Your task to perform on an android device: turn on javascript in the chrome app Image 0: 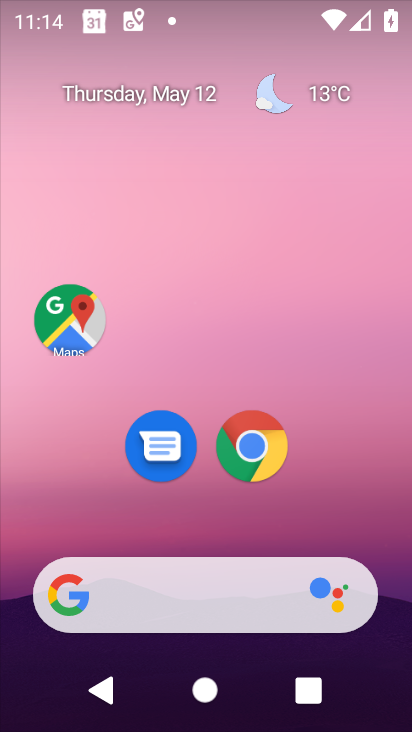
Step 0: press home button
Your task to perform on an android device: turn on javascript in the chrome app Image 1: 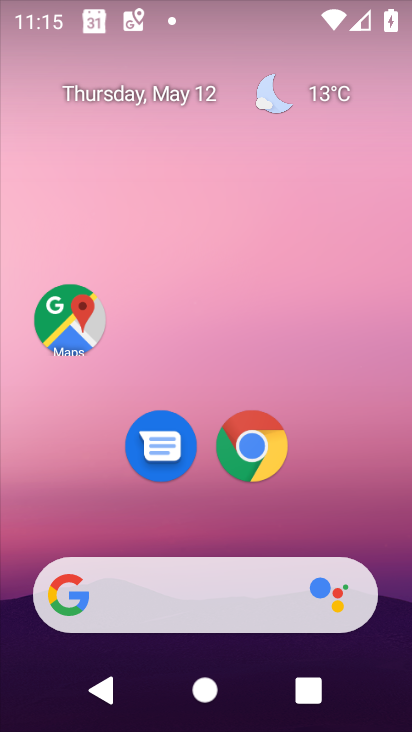
Step 1: drag from (249, 570) to (226, 8)
Your task to perform on an android device: turn on javascript in the chrome app Image 2: 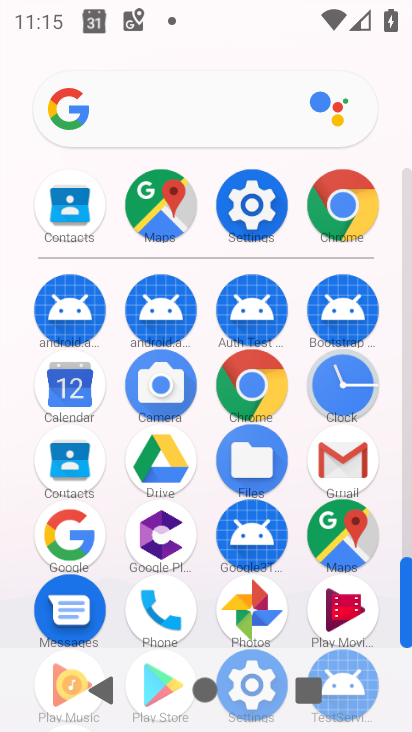
Step 2: click (251, 378)
Your task to perform on an android device: turn on javascript in the chrome app Image 3: 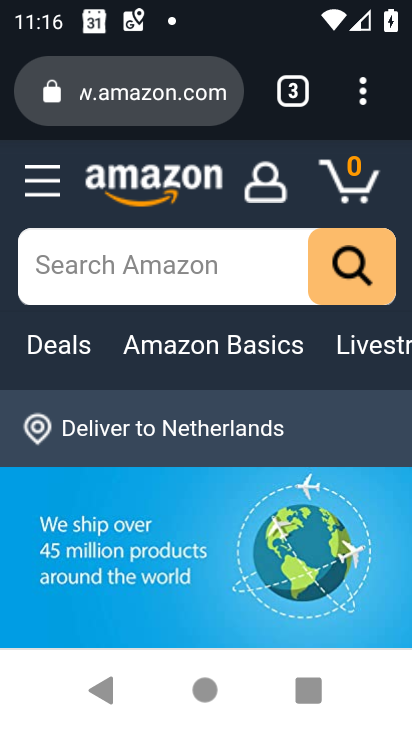
Step 3: drag from (365, 98) to (106, 483)
Your task to perform on an android device: turn on javascript in the chrome app Image 4: 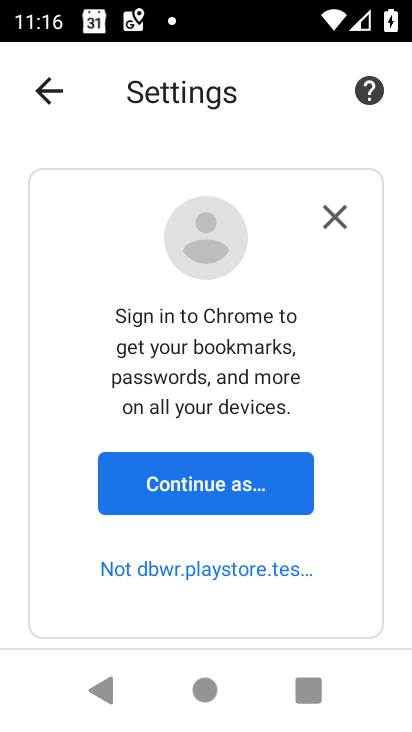
Step 4: drag from (135, 612) to (177, 0)
Your task to perform on an android device: turn on javascript in the chrome app Image 5: 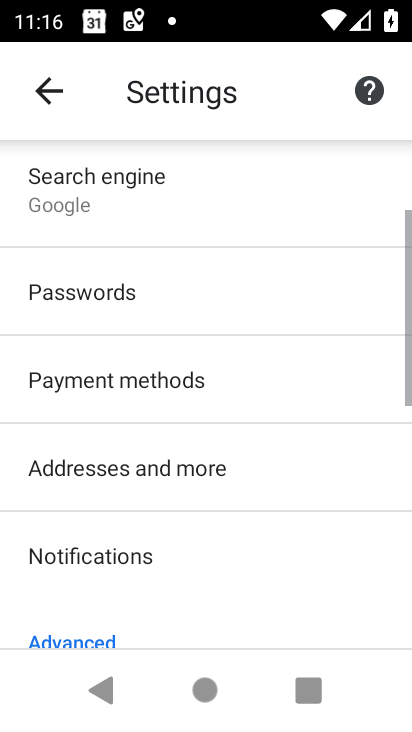
Step 5: drag from (188, 583) to (185, 181)
Your task to perform on an android device: turn on javascript in the chrome app Image 6: 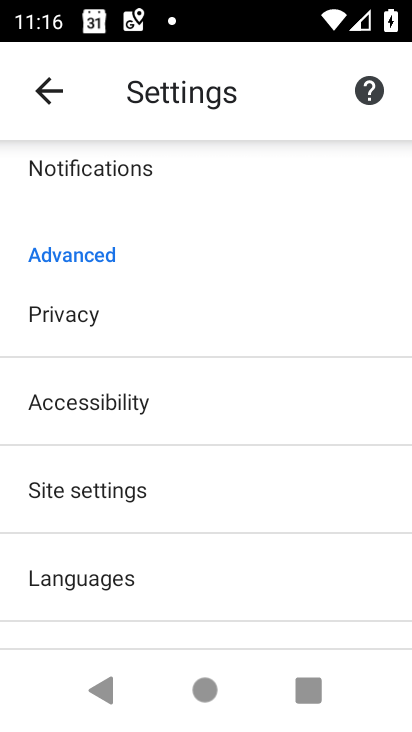
Step 6: click (119, 481)
Your task to perform on an android device: turn on javascript in the chrome app Image 7: 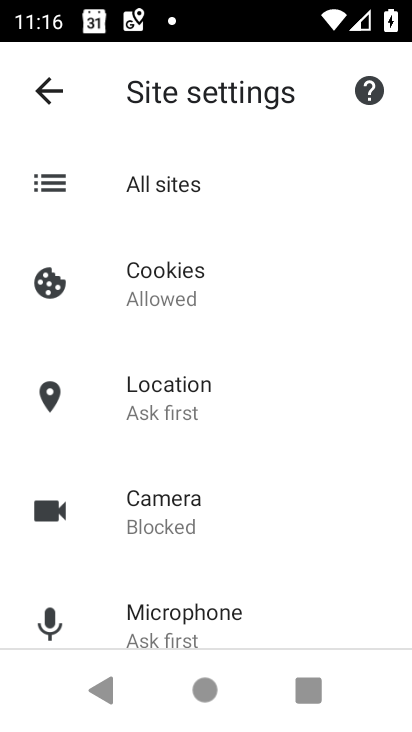
Step 7: drag from (146, 601) to (170, 124)
Your task to perform on an android device: turn on javascript in the chrome app Image 8: 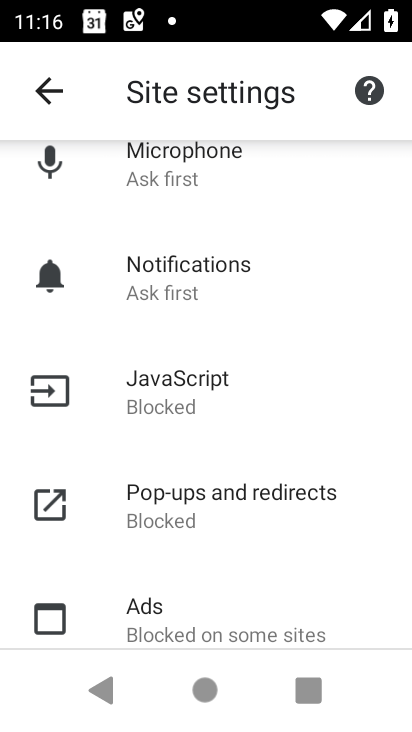
Step 8: click (185, 388)
Your task to perform on an android device: turn on javascript in the chrome app Image 9: 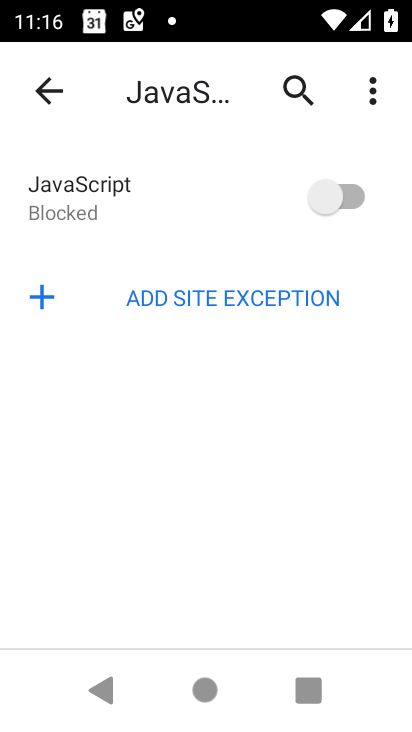
Step 9: click (345, 192)
Your task to perform on an android device: turn on javascript in the chrome app Image 10: 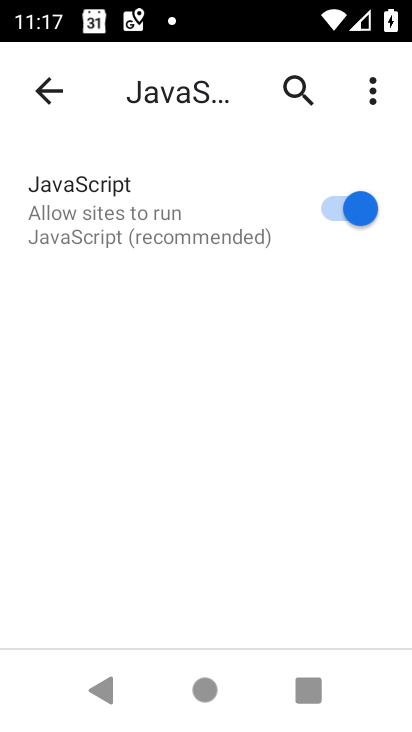
Step 10: task complete